Your task to perform on an android device: Open Android settings Image 0: 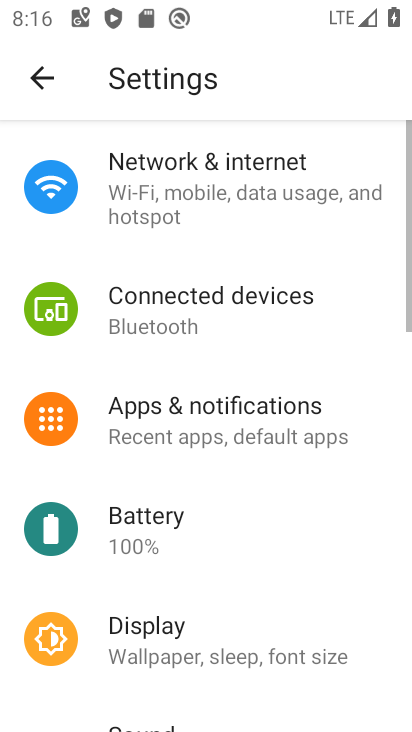
Step 0: drag from (279, 535) to (168, 243)
Your task to perform on an android device: Open Android settings Image 1: 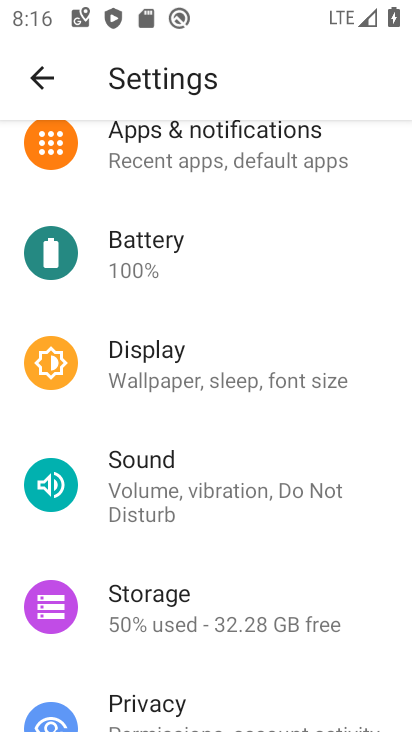
Step 1: task complete